Your task to perform on an android device: Open Chrome and go to the settings page Image 0: 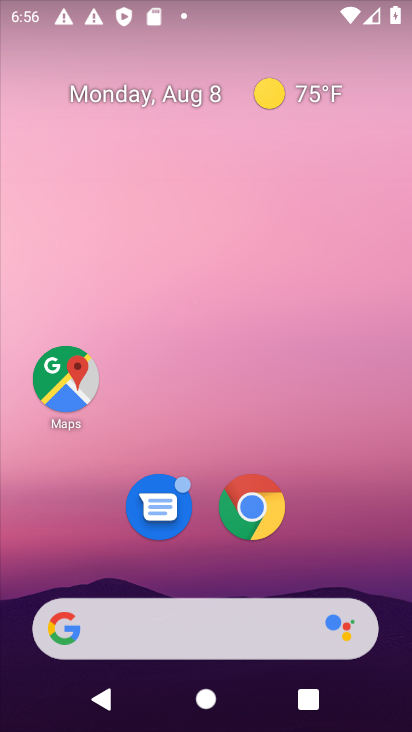
Step 0: drag from (299, 669) to (358, 128)
Your task to perform on an android device: Open Chrome and go to the settings page Image 1: 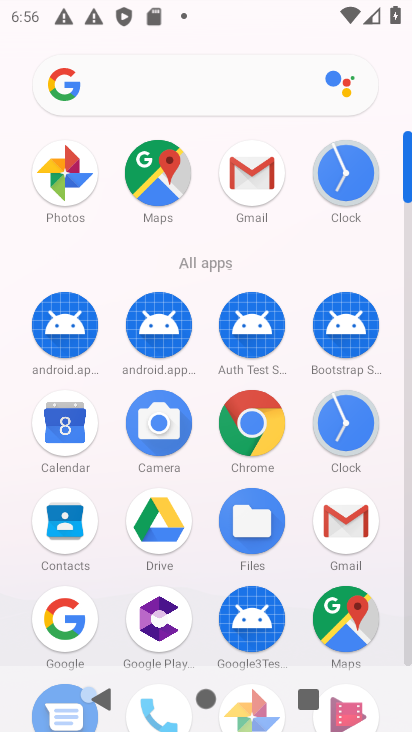
Step 1: click (244, 430)
Your task to perform on an android device: Open Chrome and go to the settings page Image 2: 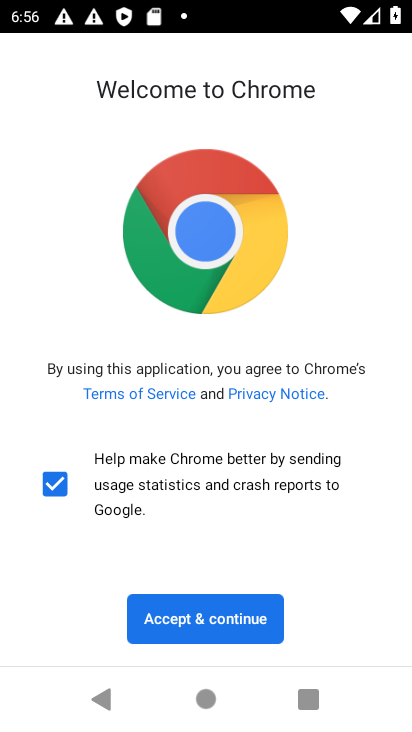
Step 2: click (246, 622)
Your task to perform on an android device: Open Chrome and go to the settings page Image 3: 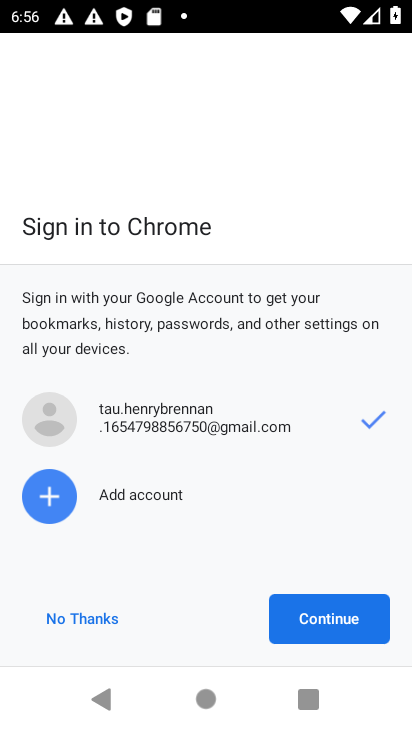
Step 3: click (313, 640)
Your task to perform on an android device: Open Chrome and go to the settings page Image 4: 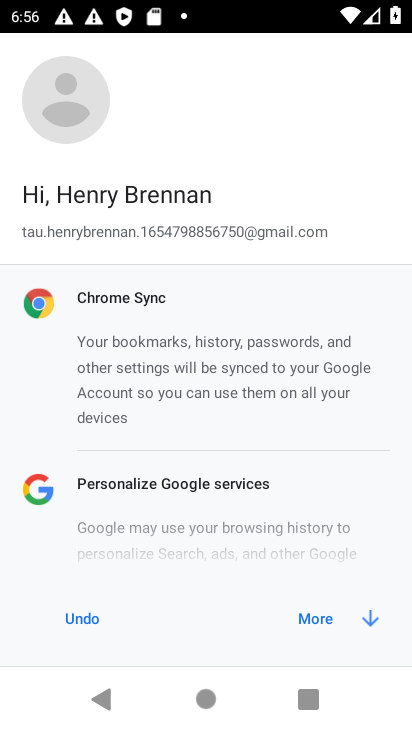
Step 4: click (374, 613)
Your task to perform on an android device: Open Chrome and go to the settings page Image 5: 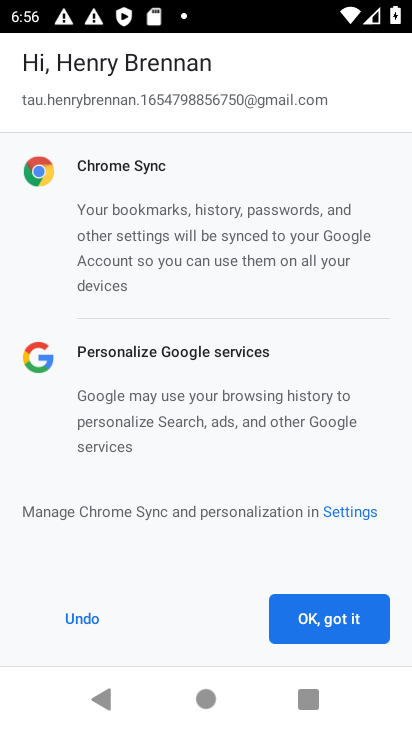
Step 5: click (341, 614)
Your task to perform on an android device: Open Chrome and go to the settings page Image 6: 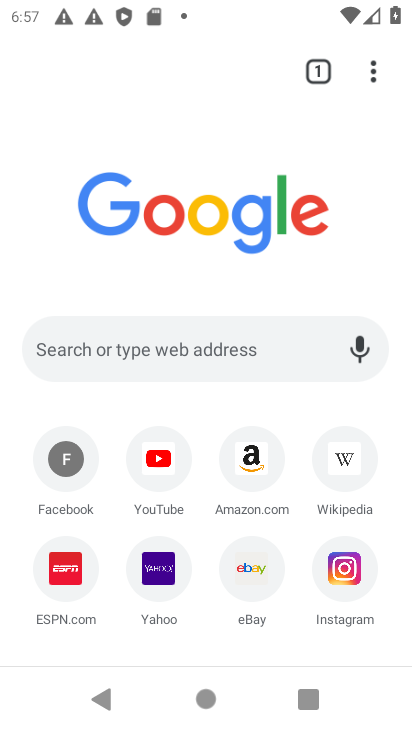
Step 6: click (380, 73)
Your task to perform on an android device: Open Chrome and go to the settings page Image 7: 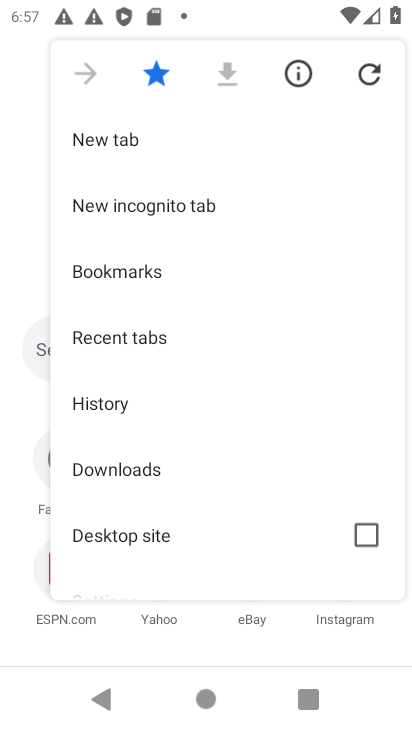
Step 7: drag from (165, 473) to (208, 262)
Your task to perform on an android device: Open Chrome and go to the settings page Image 8: 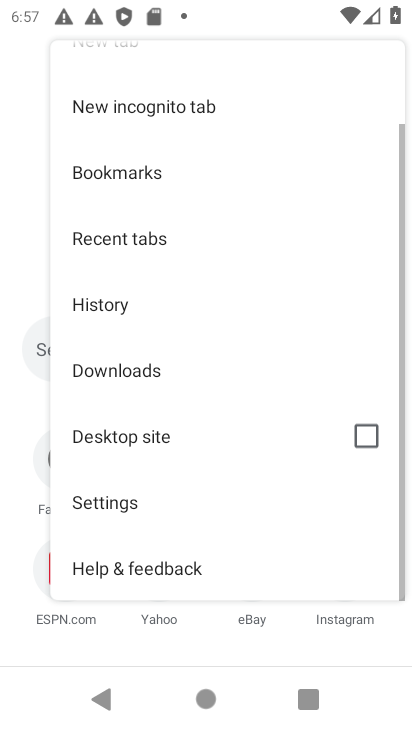
Step 8: click (141, 493)
Your task to perform on an android device: Open Chrome and go to the settings page Image 9: 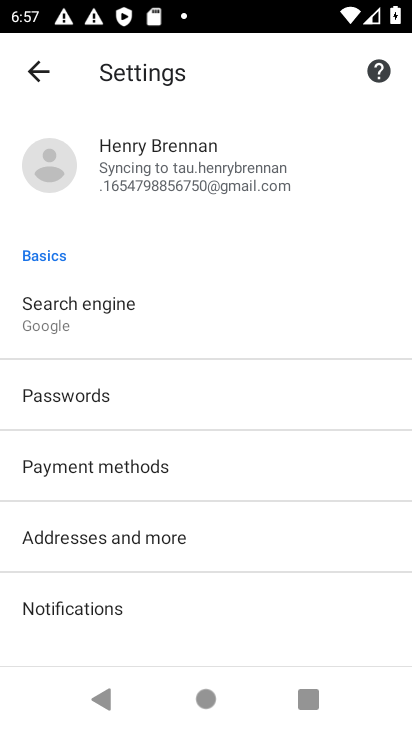
Step 9: drag from (139, 549) to (187, 264)
Your task to perform on an android device: Open Chrome and go to the settings page Image 10: 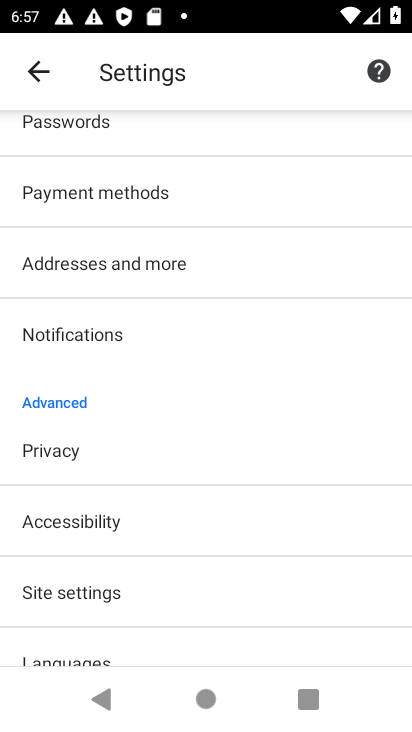
Step 10: click (110, 581)
Your task to perform on an android device: Open Chrome and go to the settings page Image 11: 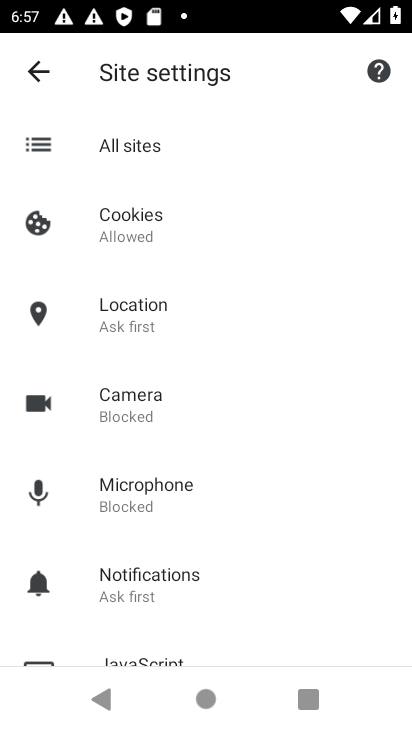
Step 11: task complete